Your task to perform on an android device: Open Google Maps Image 0: 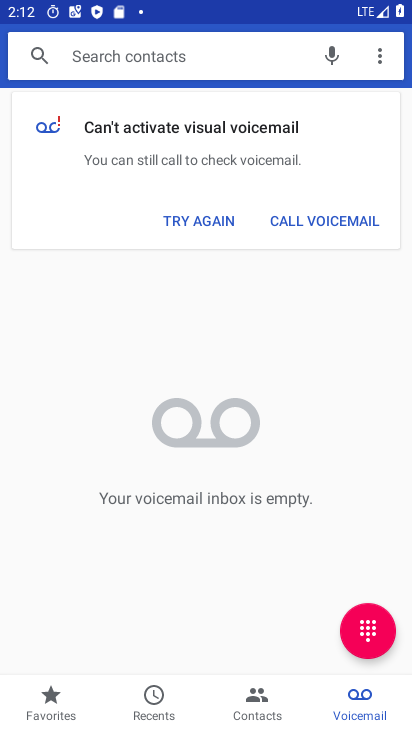
Step 0: drag from (257, 440) to (268, 78)
Your task to perform on an android device: Open Google Maps Image 1: 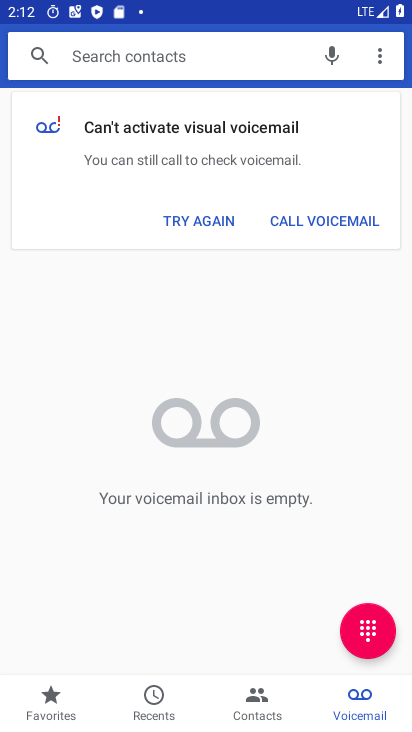
Step 1: drag from (216, 328) to (255, 534)
Your task to perform on an android device: Open Google Maps Image 2: 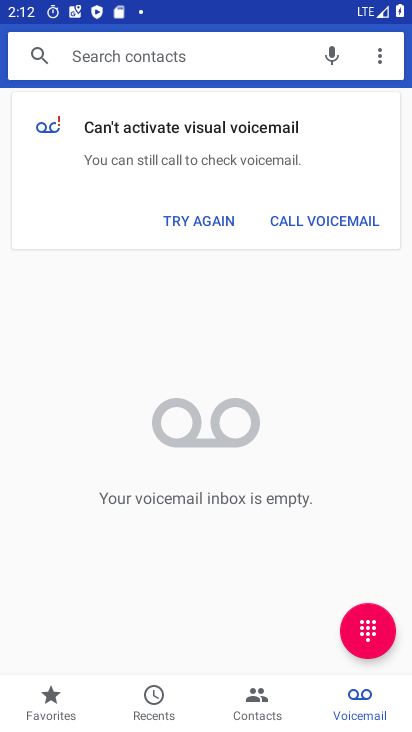
Step 2: drag from (238, 408) to (255, 81)
Your task to perform on an android device: Open Google Maps Image 3: 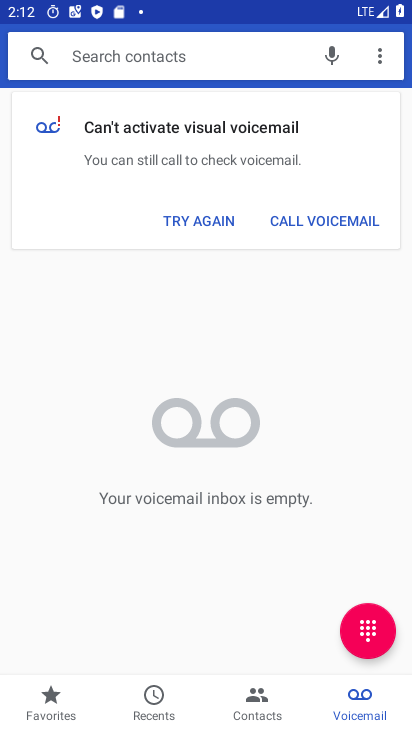
Step 3: press home button
Your task to perform on an android device: Open Google Maps Image 4: 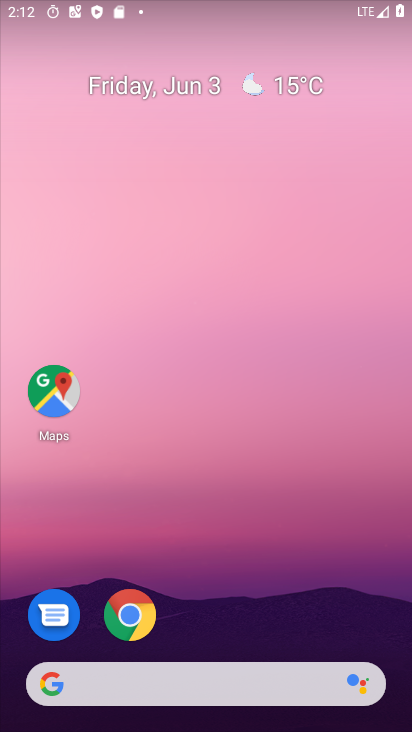
Step 4: drag from (214, 599) to (227, 222)
Your task to perform on an android device: Open Google Maps Image 5: 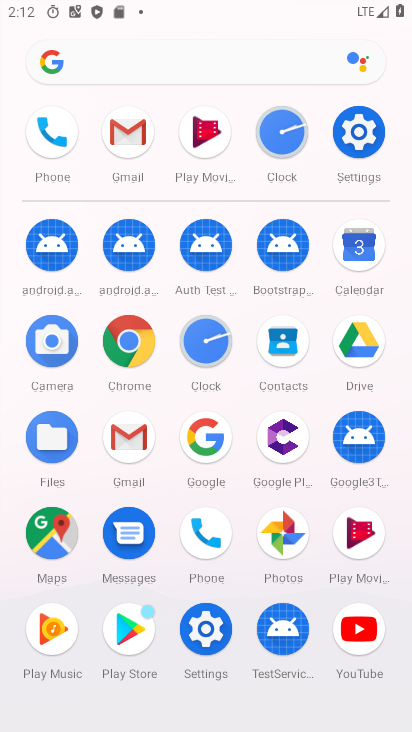
Step 5: click (50, 538)
Your task to perform on an android device: Open Google Maps Image 6: 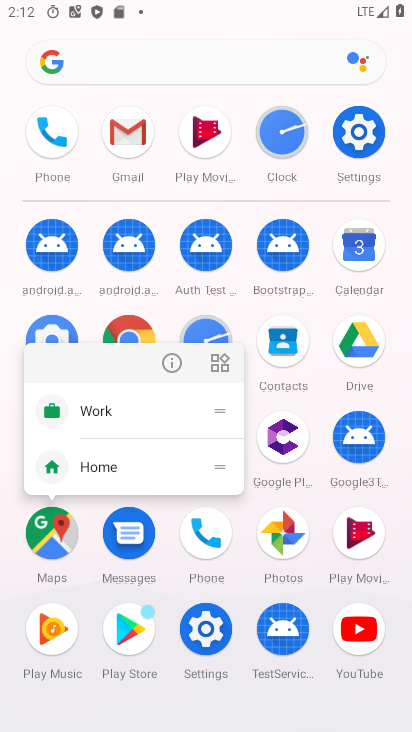
Step 6: click (176, 363)
Your task to perform on an android device: Open Google Maps Image 7: 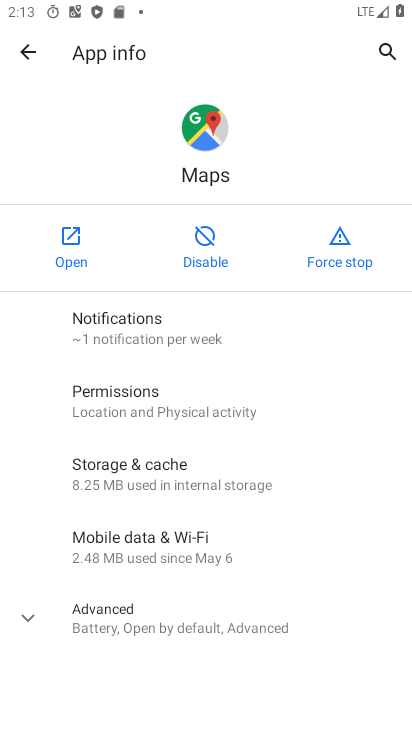
Step 7: click (61, 243)
Your task to perform on an android device: Open Google Maps Image 8: 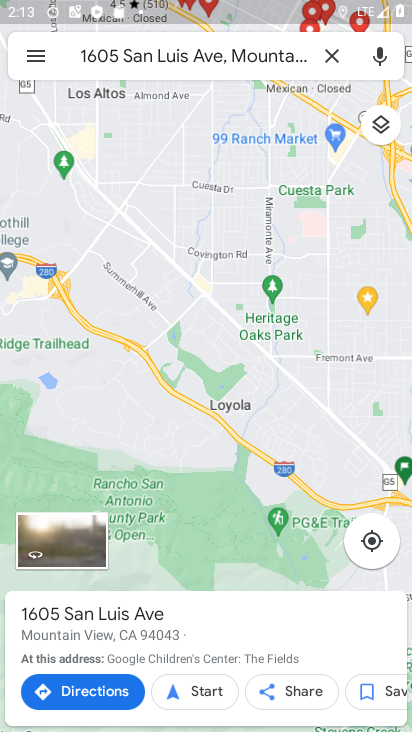
Step 8: task complete